Your task to perform on an android device: Go to network settings Image 0: 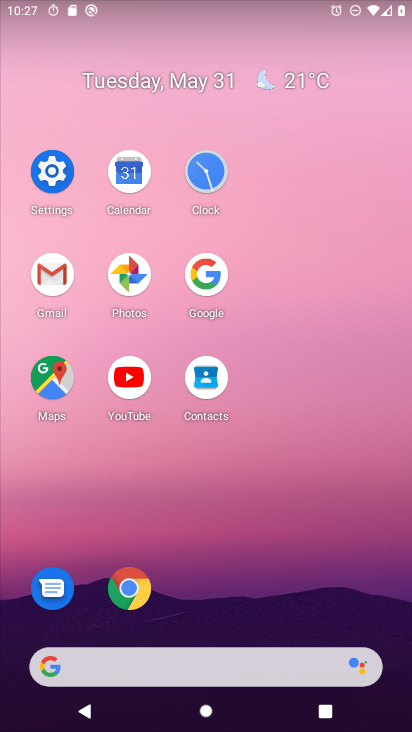
Step 0: click (38, 180)
Your task to perform on an android device: Go to network settings Image 1: 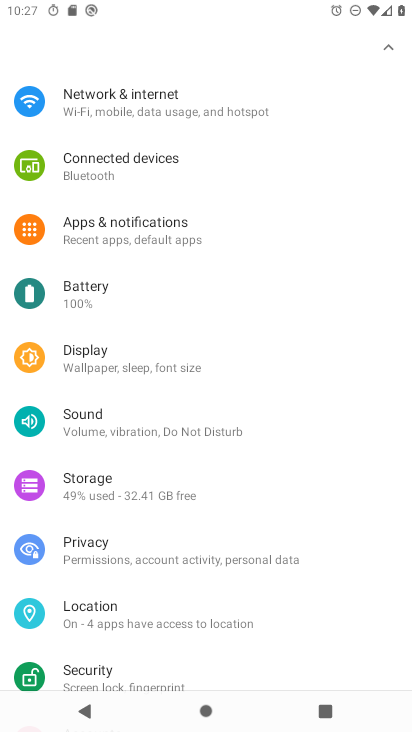
Step 1: click (208, 127)
Your task to perform on an android device: Go to network settings Image 2: 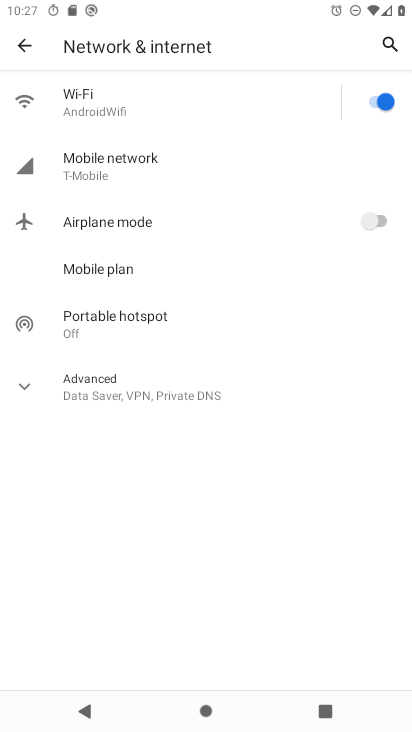
Step 2: task complete